Your task to perform on an android device: Open settings Image 0: 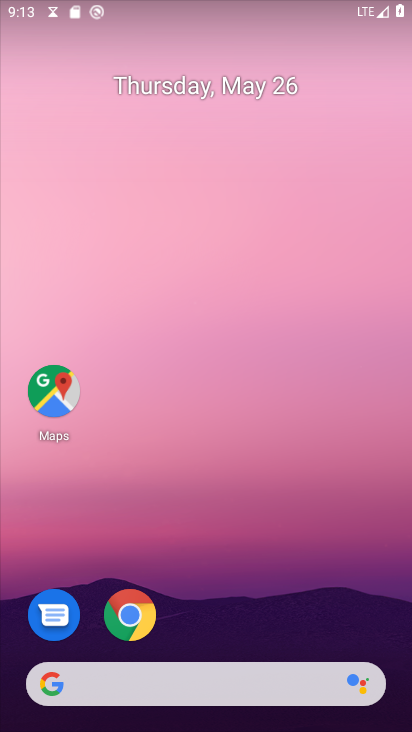
Step 0: drag from (235, 541) to (232, 246)
Your task to perform on an android device: Open settings Image 1: 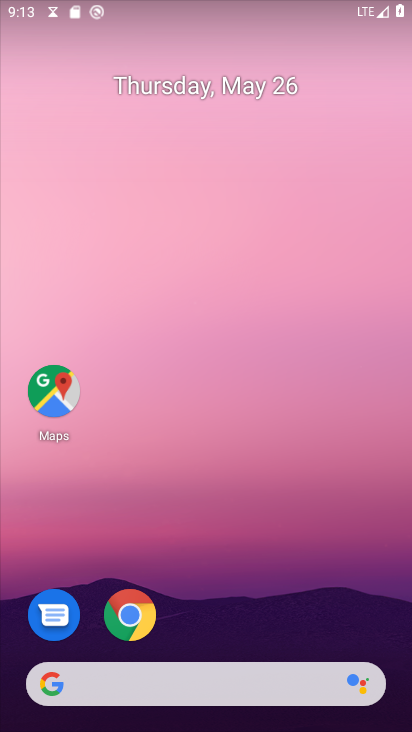
Step 1: drag from (200, 583) to (231, 184)
Your task to perform on an android device: Open settings Image 2: 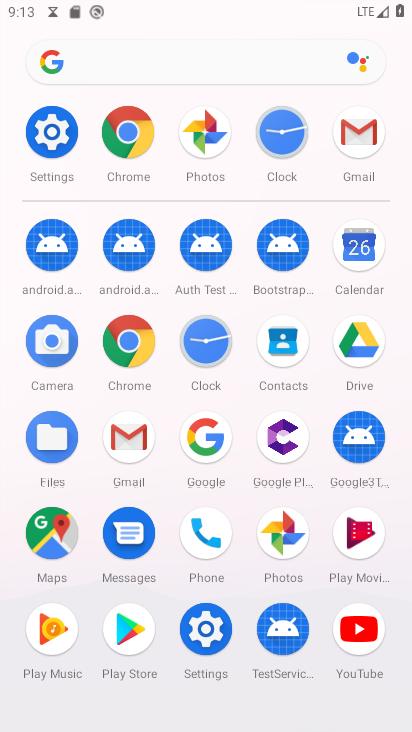
Step 2: click (54, 119)
Your task to perform on an android device: Open settings Image 3: 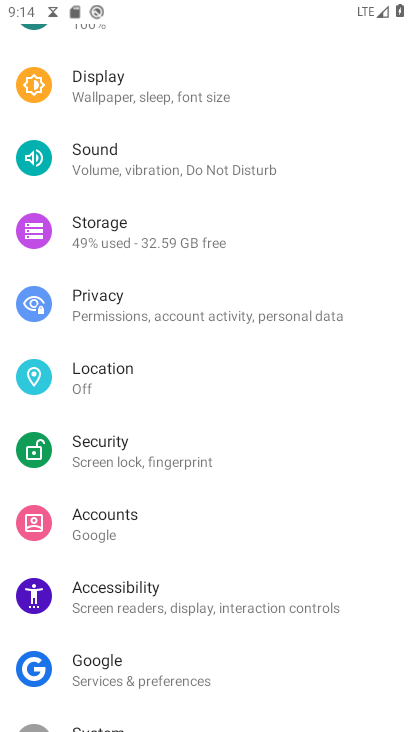
Step 3: task complete